Your task to perform on an android device: Play the last video I watched on Youtube Image 0: 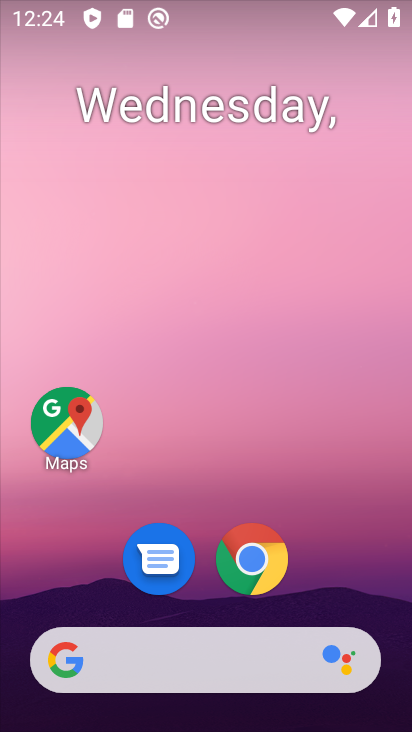
Step 0: drag from (219, 590) to (247, 182)
Your task to perform on an android device: Play the last video I watched on Youtube Image 1: 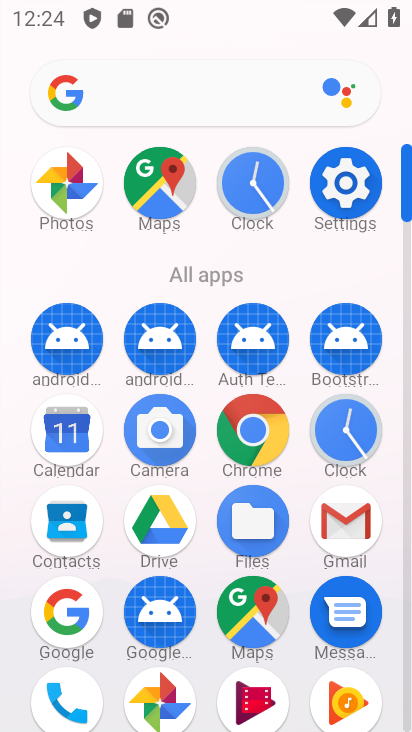
Step 1: drag from (304, 653) to (350, 142)
Your task to perform on an android device: Play the last video I watched on Youtube Image 2: 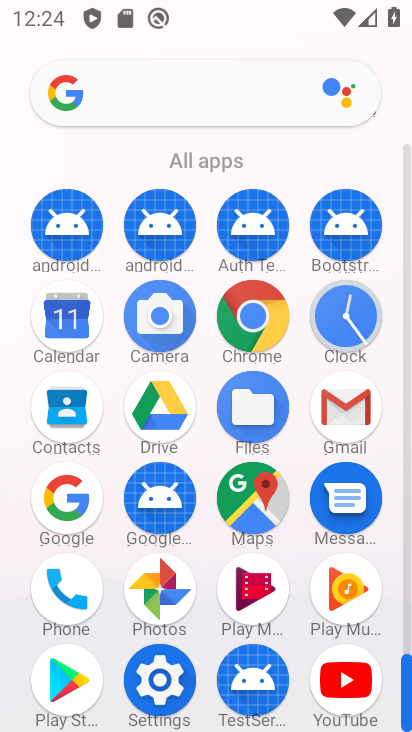
Step 2: click (338, 662)
Your task to perform on an android device: Play the last video I watched on Youtube Image 3: 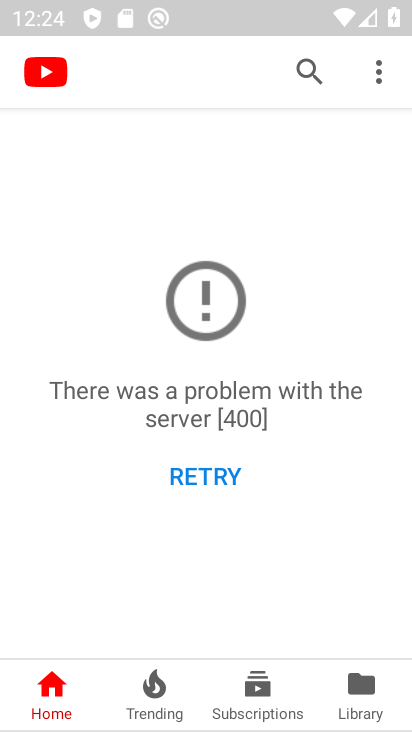
Step 3: click (214, 477)
Your task to perform on an android device: Play the last video I watched on Youtube Image 4: 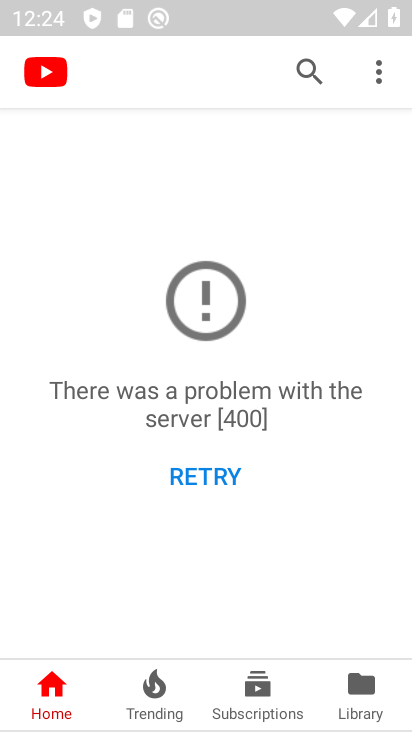
Step 4: click (370, 701)
Your task to perform on an android device: Play the last video I watched on Youtube Image 5: 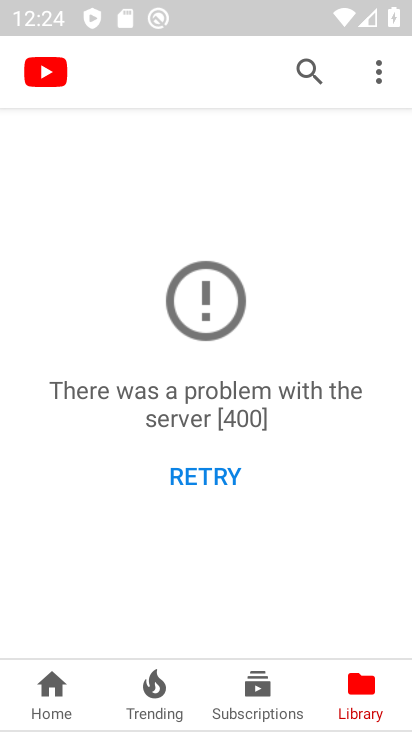
Step 5: task complete